Your task to perform on an android device: turn off smart reply in the gmail app Image 0: 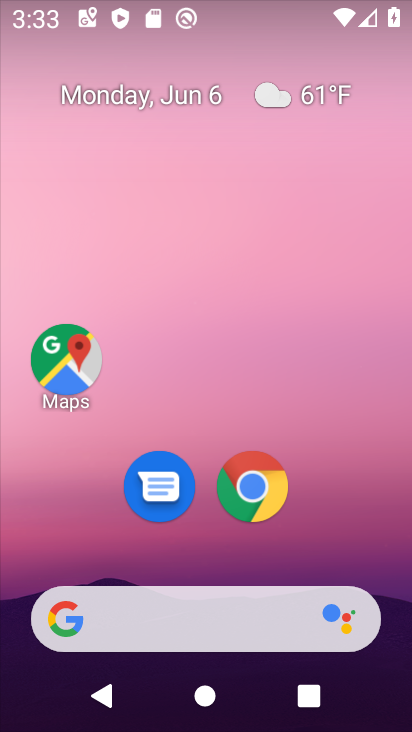
Step 0: drag from (324, 501) to (320, 141)
Your task to perform on an android device: turn off smart reply in the gmail app Image 1: 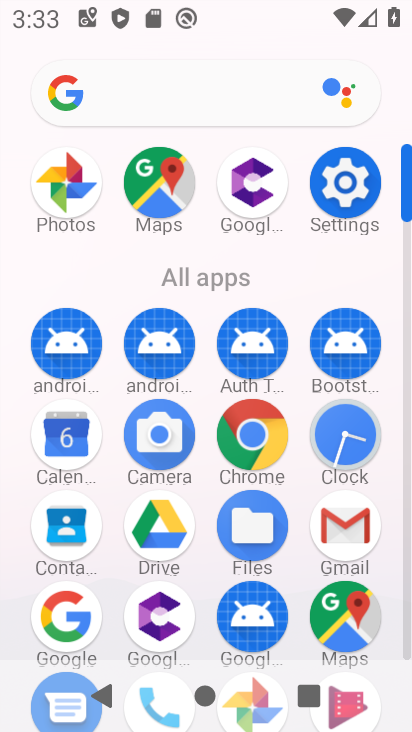
Step 1: click (339, 535)
Your task to perform on an android device: turn off smart reply in the gmail app Image 2: 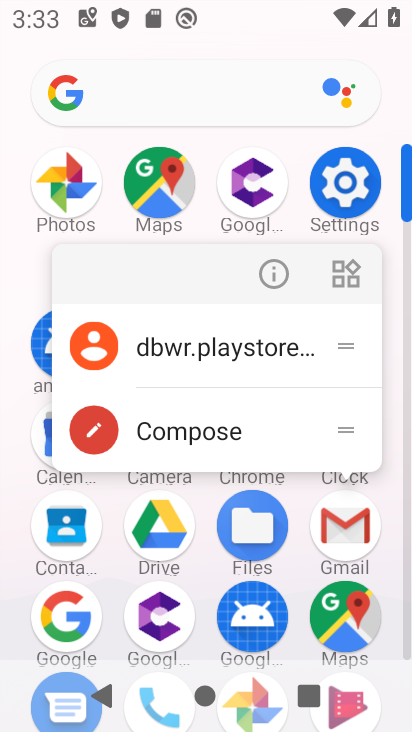
Step 2: click (355, 513)
Your task to perform on an android device: turn off smart reply in the gmail app Image 3: 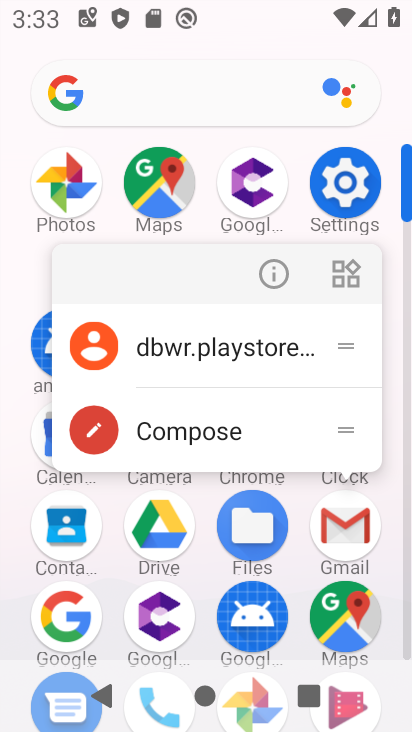
Step 3: click (331, 529)
Your task to perform on an android device: turn off smart reply in the gmail app Image 4: 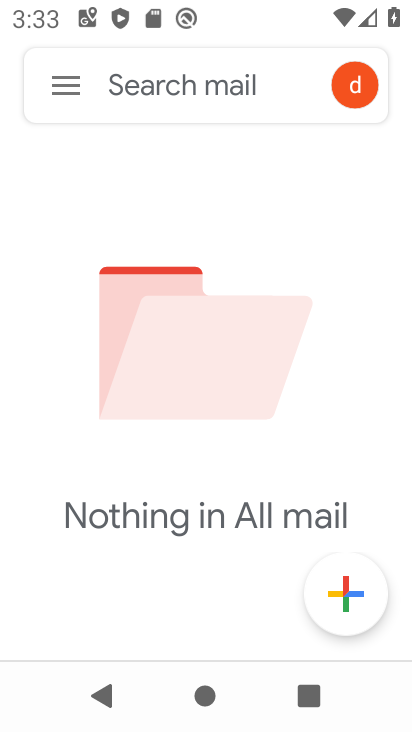
Step 4: click (76, 68)
Your task to perform on an android device: turn off smart reply in the gmail app Image 5: 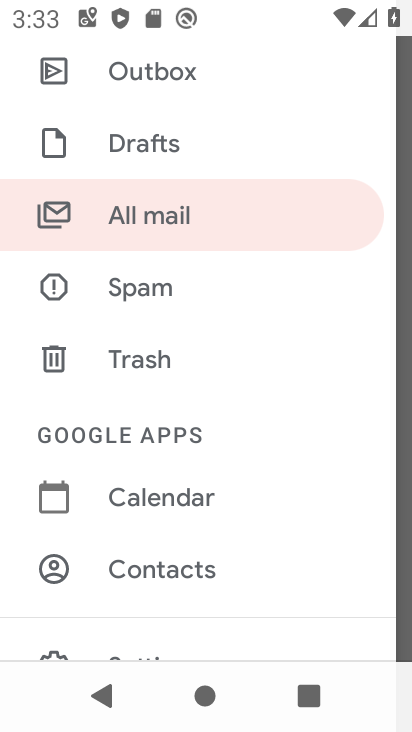
Step 5: drag from (201, 514) to (242, 70)
Your task to perform on an android device: turn off smart reply in the gmail app Image 6: 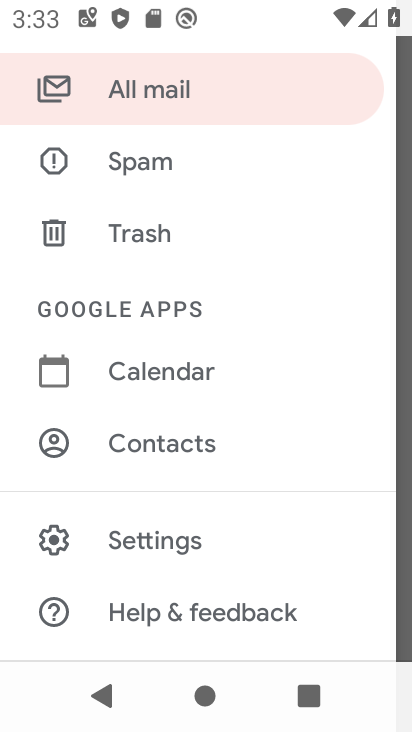
Step 6: click (169, 545)
Your task to perform on an android device: turn off smart reply in the gmail app Image 7: 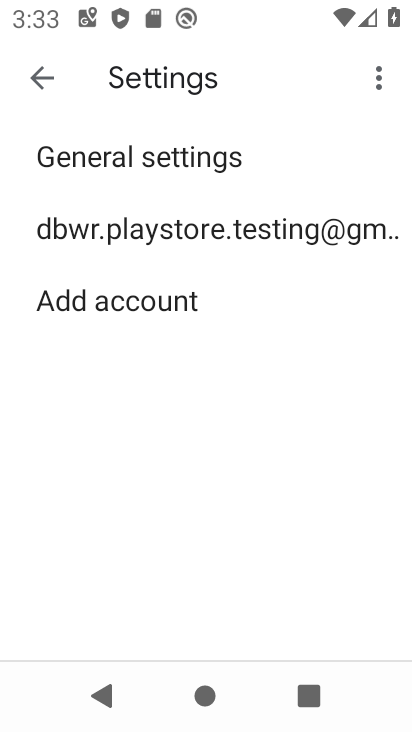
Step 7: click (282, 225)
Your task to perform on an android device: turn off smart reply in the gmail app Image 8: 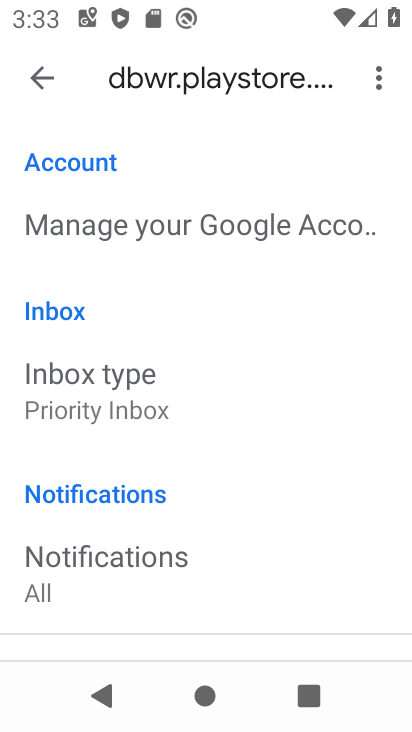
Step 8: drag from (255, 575) to (262, 155)
Your task to perform on an android device: turn off smart reply in the gmail app Image 9: 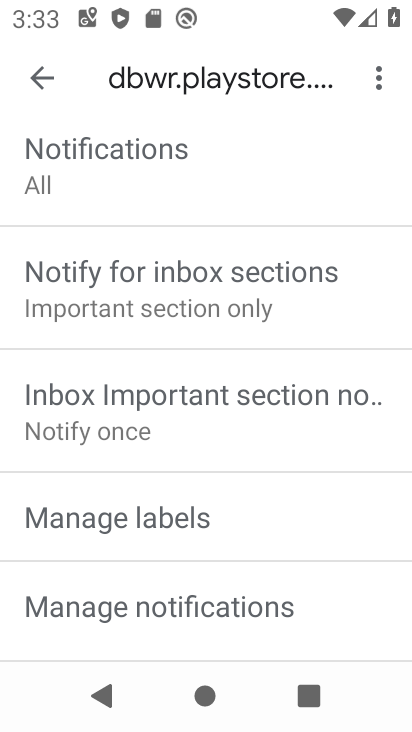
Step 9: drag from (183, 479) to (232, 104)
Your task to perform on an android device: turn off smart reply in the gmail app Image 10: 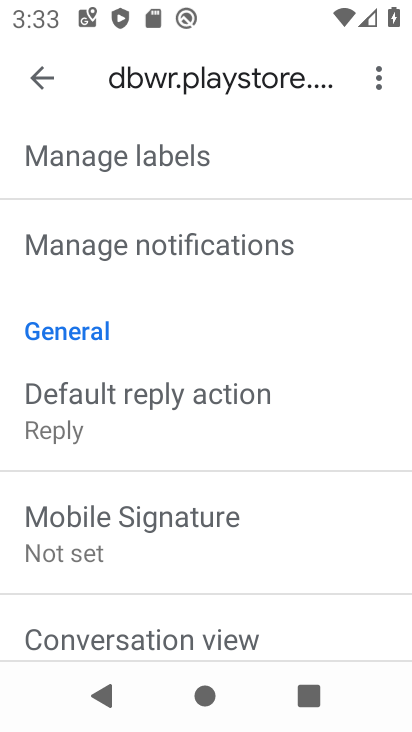
Step 10: drag from (183, 479) to (224, 120)
Your task to perform on an android device: turn off smart reply in the gmail app Image 11: 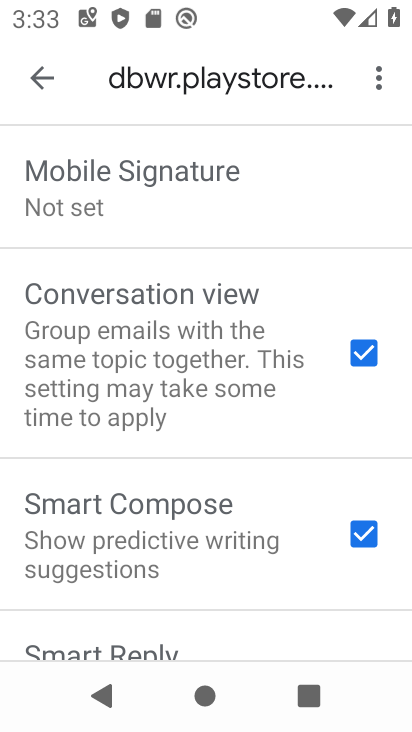
Step 11: drag from (274, 516) to (287, 180)
Your task to perform on an android device: turn off smart reply in the gmail app Image 12: 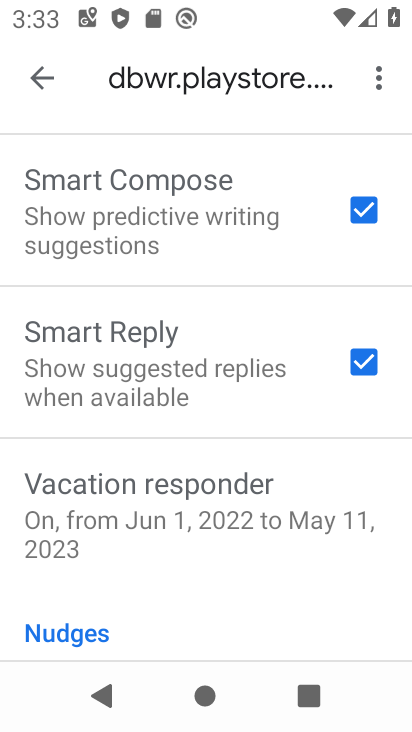
Step 12: click (366, 371)
Your task to perform on an android device: turn off smart reply in the gmail app Image 13: 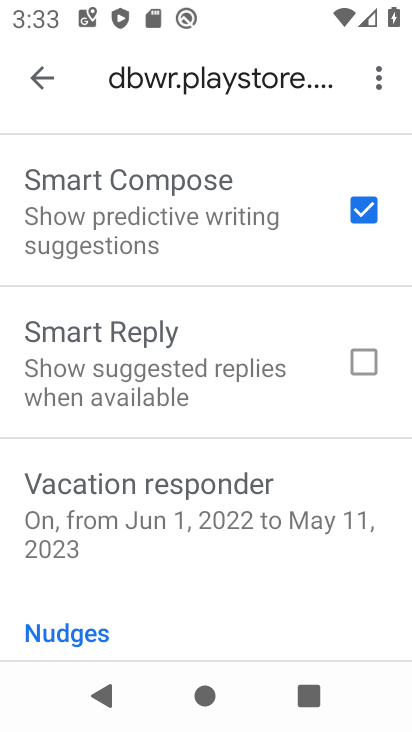
Step 13: task complete